Your task to perform on an android device: all mails in gmail Image 0: 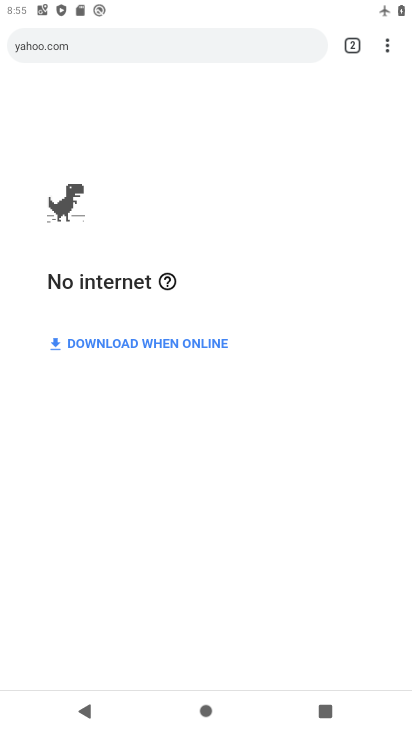
Step 0: press home button
Your task to perform on an android device: all mails in gmail Image 1: 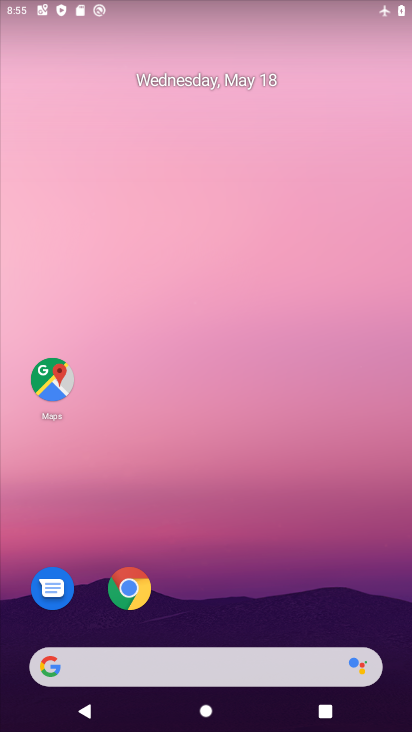
Step 1: drag from (290, 588) to (239, 8)
Your task to perform on an android device: all mails in gmail Image 2: 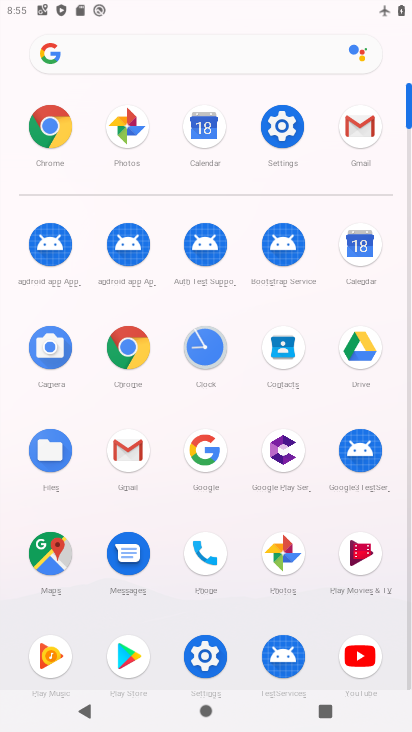
Step 2: click (360, 130)
Your task to perform on an android device: all mails in gmail Image 3: 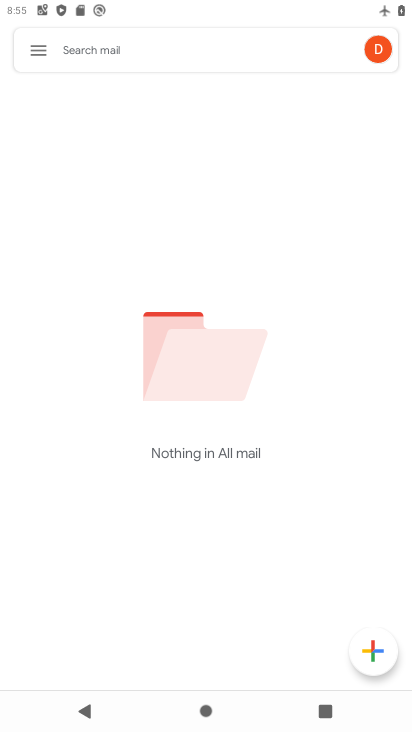
Step 3: task complete